Your task to perform on an android device: open sync settings in chrome Image 0: 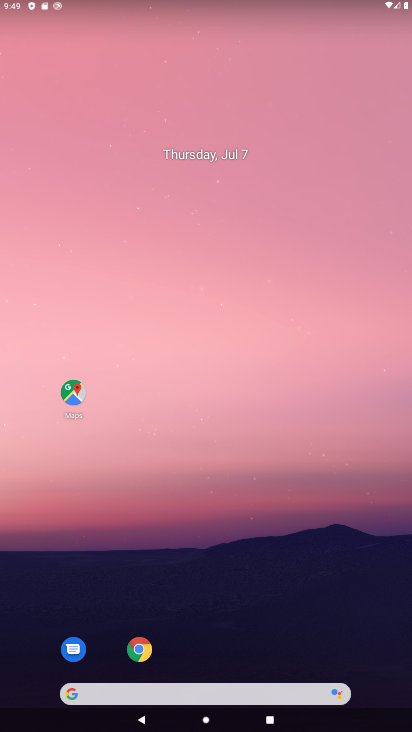
Step 0: click (136, 647)
Your task to perform on an android device: open sync settings in chrome Image 1: 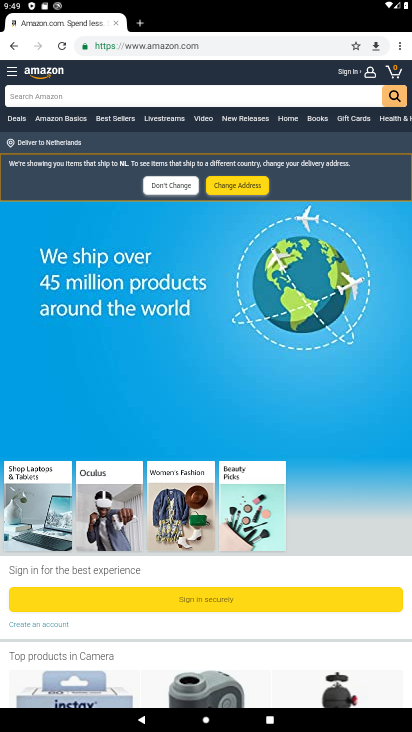
Step 1: click (403, 44)
Your task to perform on an android device: open sync settings in chrome Image 2: 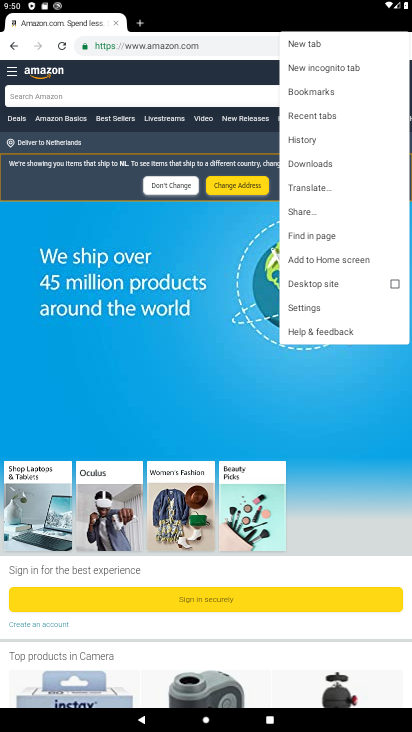
Step 2: click (319, 308)
Your task to perform on an android device: open sync settings in chrome Image 3: 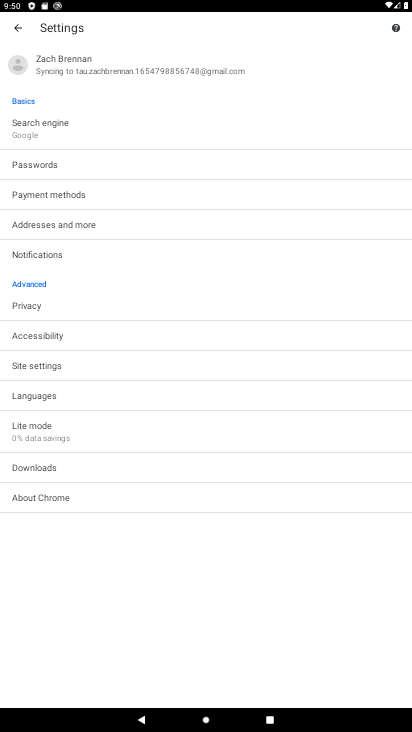
Step 3: click (134, 71)
Your task to perform on an android device: open sync settings in chrome Image 4: 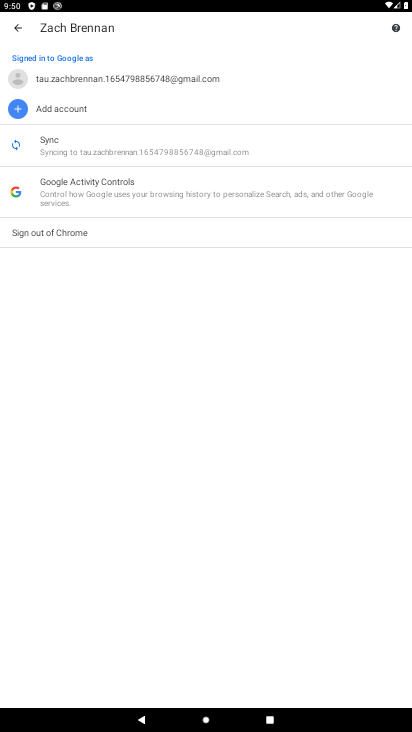
Step 4: click (71, 148)
Your task to perform on an android device: open sync settings in chrome Image 5: 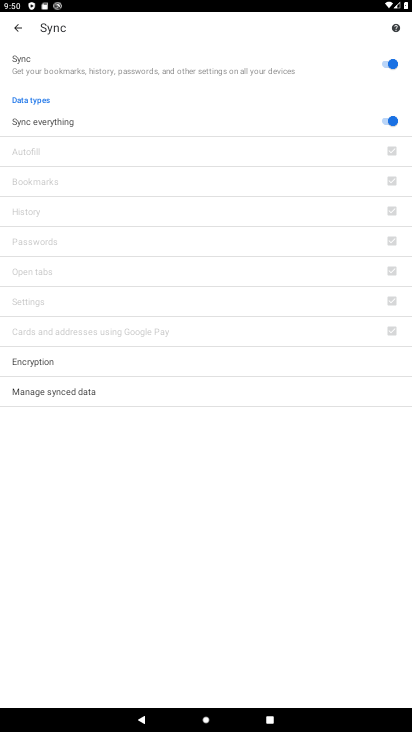
Step 5: task complete